Your task to perform on an android device: What is the news today? Image 0: 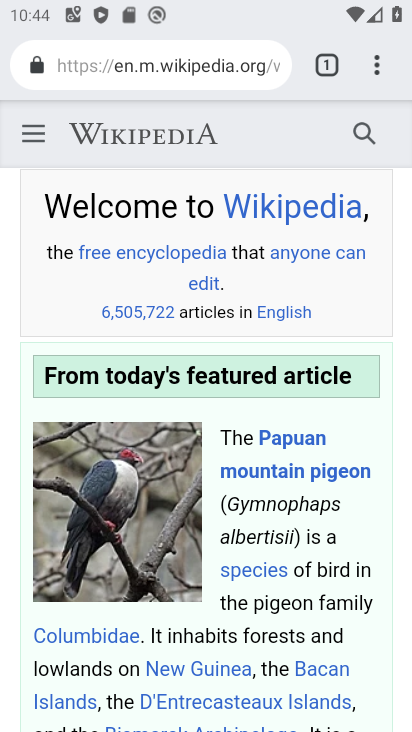
Step 0: click (194, 57)
Your task to perform on an android device: What is the news today? Image 1: 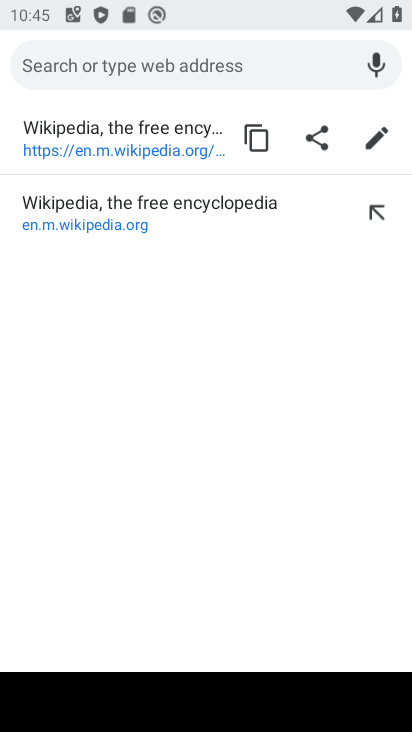
Step 1: click (259, 59)
Your task to perform on an android device: What is the news today? Image 2: 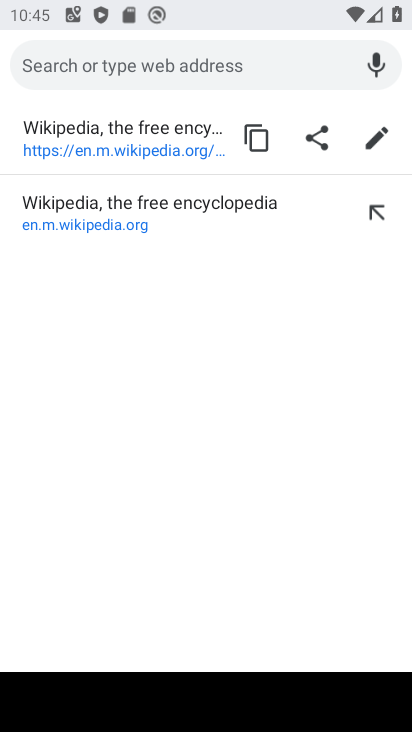
Step 2: type "What is the news today?"
Your task to perform on an android device: What is the news today? Image 3: 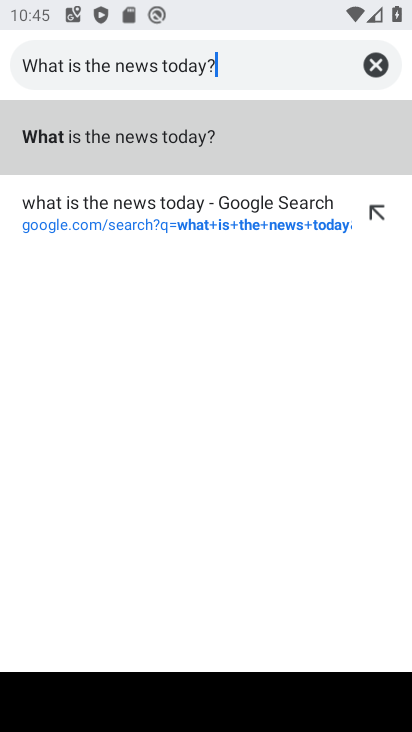
Step 3: click (129, 139)
Your task to perform on an android device: What is the news today? Image 4: 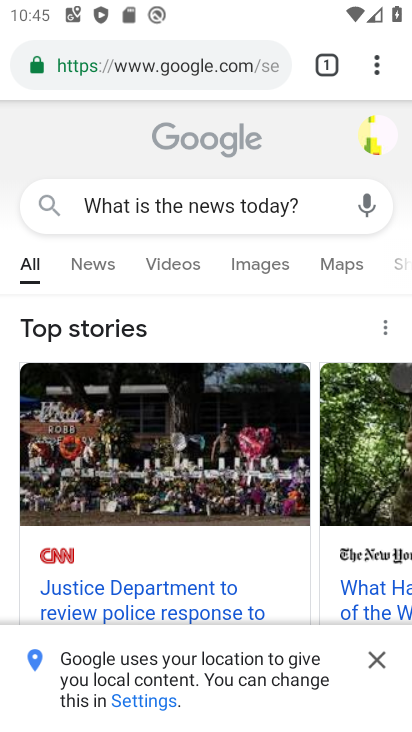
Step 4: task complete